Your task to perform on an android device: clear history in the chrome app Image 0: 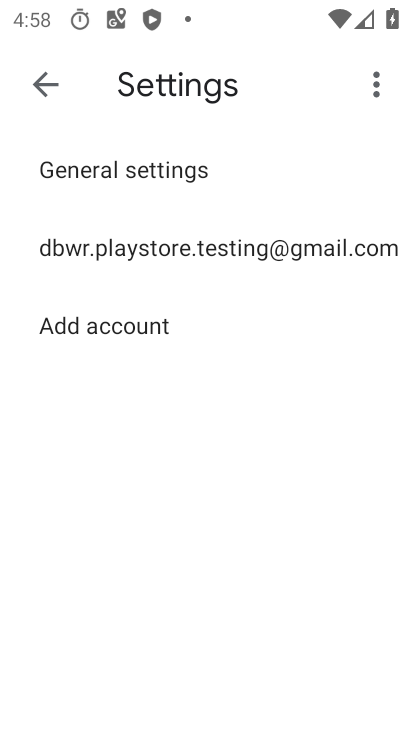
Step 0: press home button
Your task to perform on an android device: clear history in the chrome app Image 1: 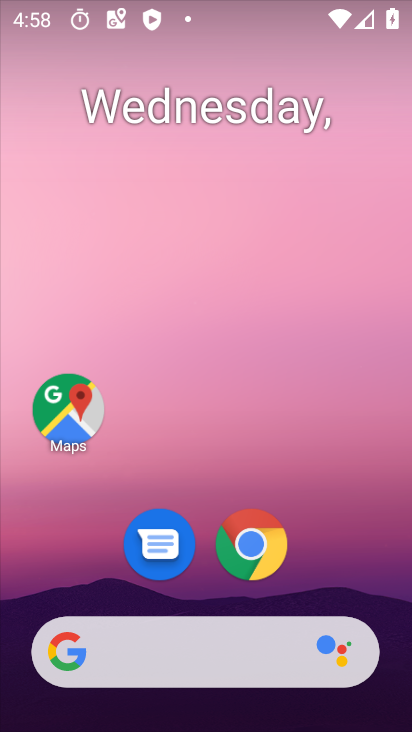
Step 1: drag from (210, 593) to (267, 26)
Your task to perform on an android device: clear history in the chrome app Image 2: 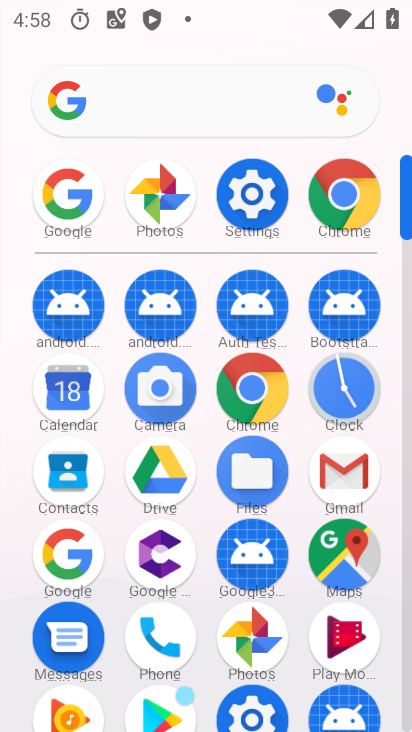
Step 2: click (335, 206)
Your task to perform on an android device: clear history in the chrome app Image 3: 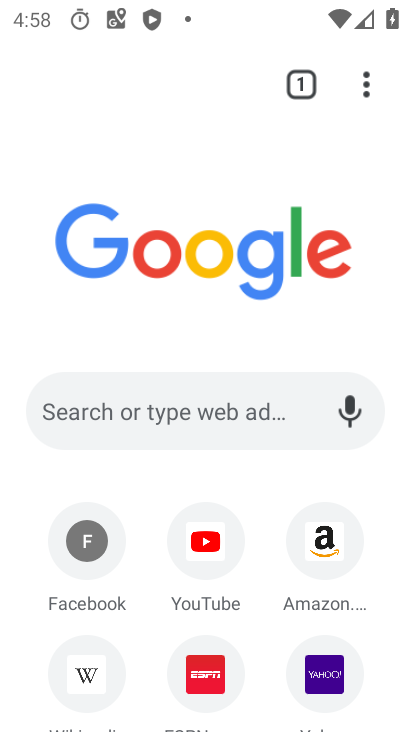
Step 3: click (368, 93)
Your task to perform on an android device: clear history in the chrome app Image 4: 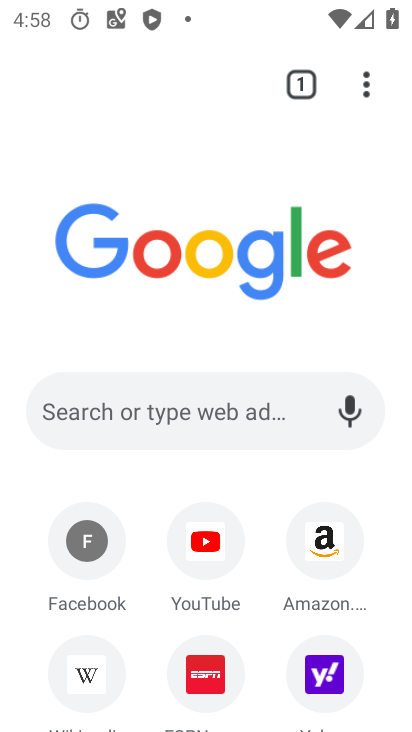
Step 4: drag from (363, 87) to (74, 488)
Your task to perform on an android device: clear history in the chrome app Image 5: 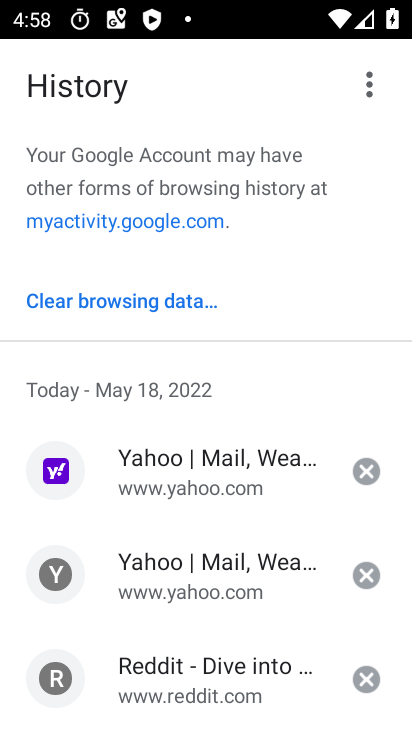
Step 5: click (120, 292)
Your task to perform on an android device: clear history in the chrome app Image 6: 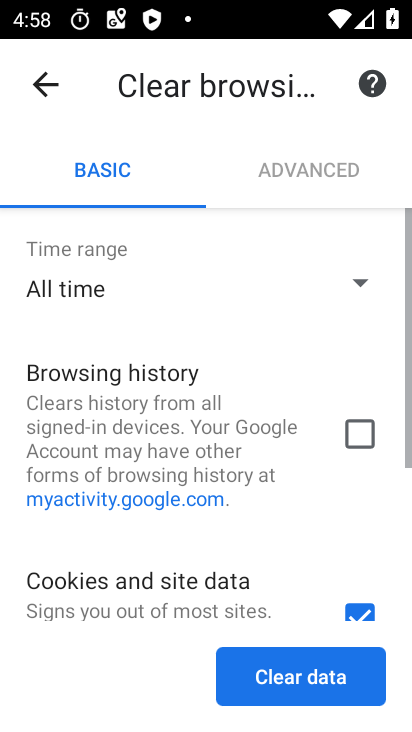
Step 6: click (326, 662)
Your task to perform on an android device: clear history in the chrome app Image 7: 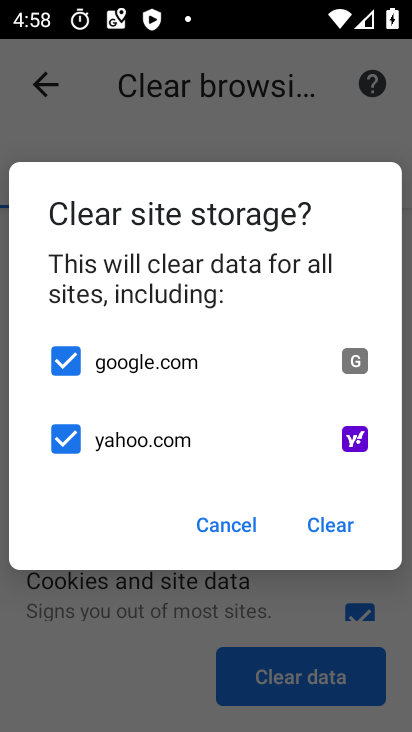
Step 7: click (250, 517)
Your task to perform on an android device: clear history in the chrome app Image 8: 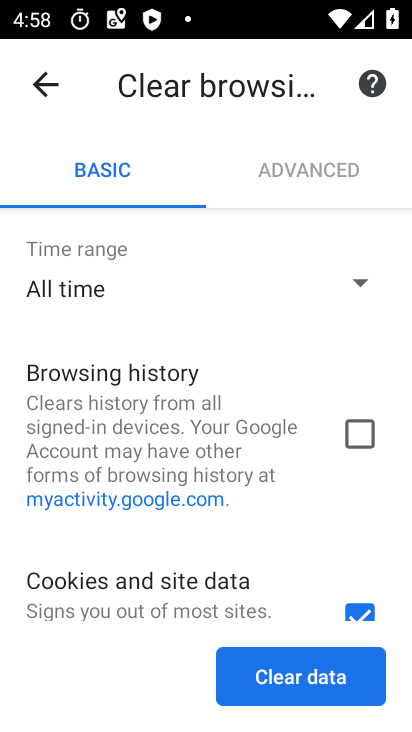
Step 8: click (350, 467)
Your task to perform on an android device: clear history in the chrome app Image 9: 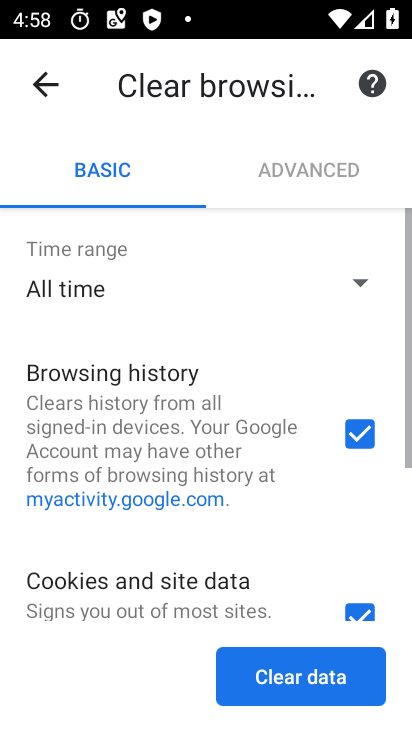
Step 9: click (325, 671)
Your task to perform on an android device: clear history in the chrome app Image 10: 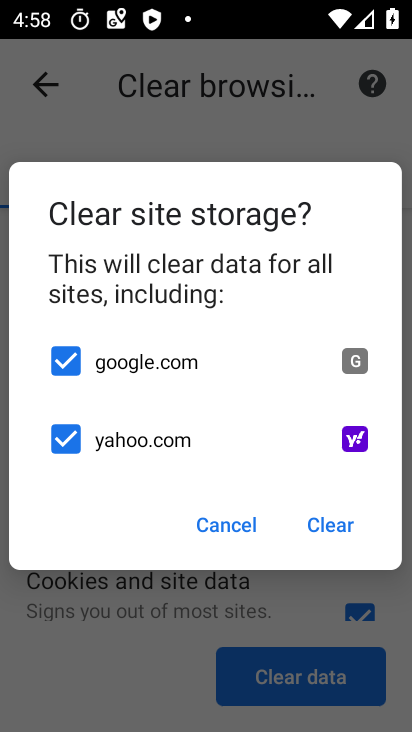
Step 10: click (337, 529)
Your task to perform on an android device: clear history in the chrome app Image 11: 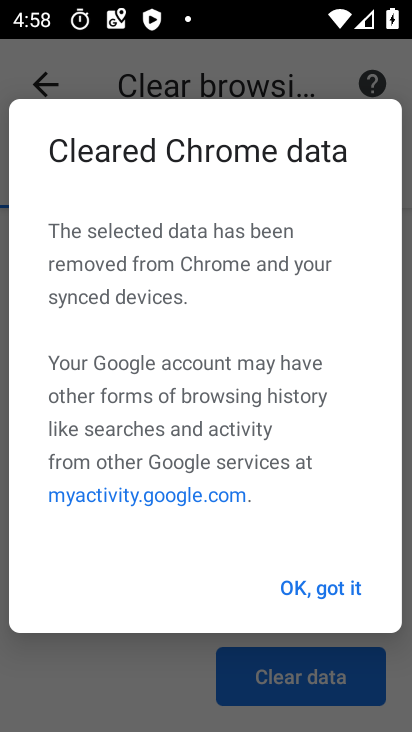
Step 11: click (336, 582)
Your task to perform on an android device: clear history in the chrome app Image 12: 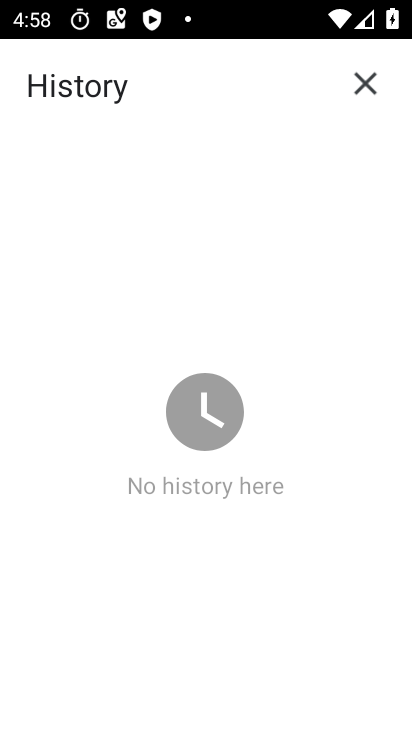
Step 12: task complete